Your task to perform on an android device: refresh tabs in the chrome app Image 0: 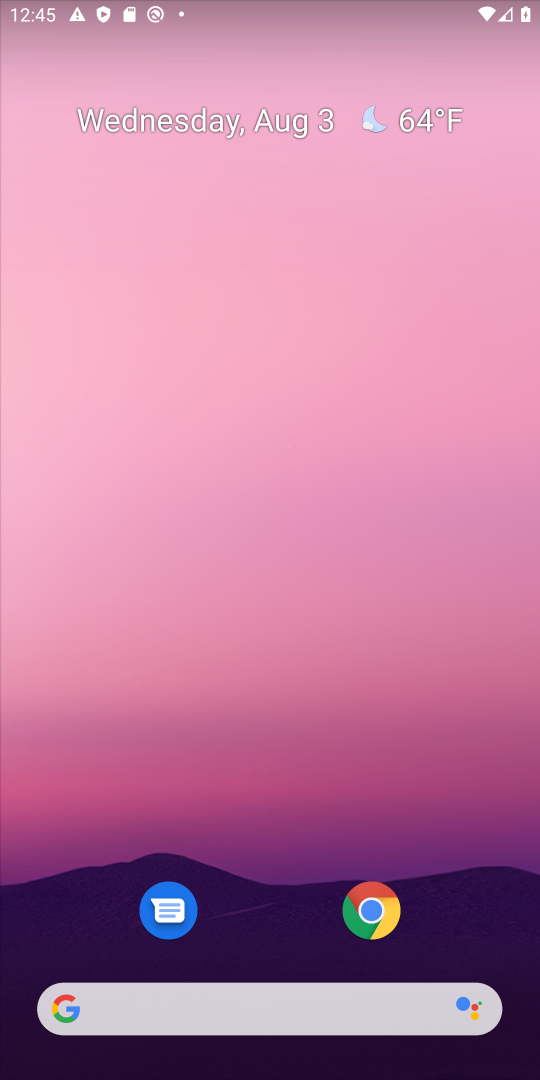
Step 0: drag from (329, 1016) to (529, 523)
Your task to perform on an android device: refresh tabs in the chrome app Image 1: 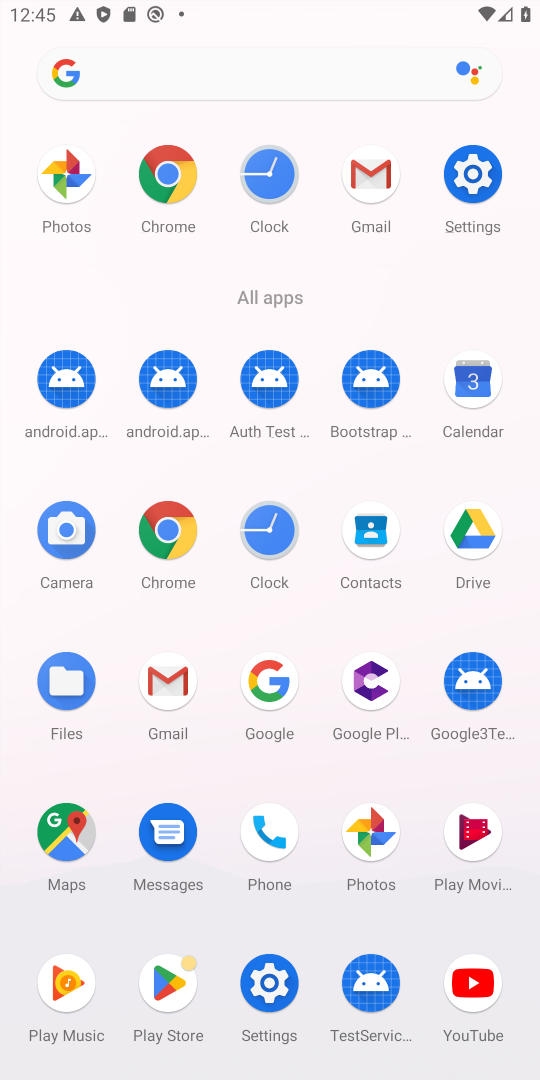
Step 1: click (166, 516)
Your task to perform on an android device: refresh tabs in the chrome app Image 2: 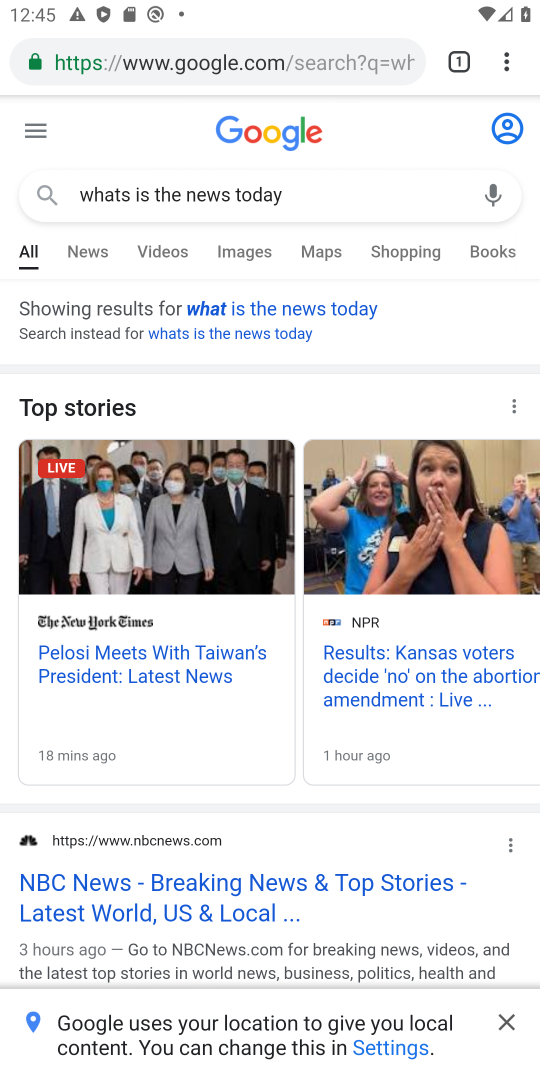
Step 2: click (512, 54)
Your task to perform on an android device: refresh tabs in the chrome app Image 3: 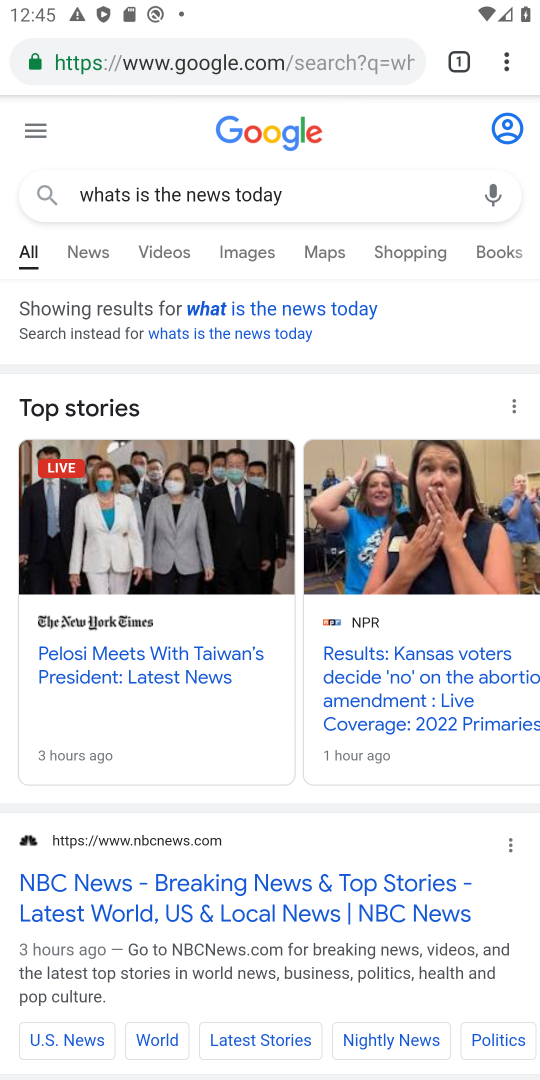
Step 3: task complete